Your task to perform on an android device: open a new tab in the chrome app Image 0: 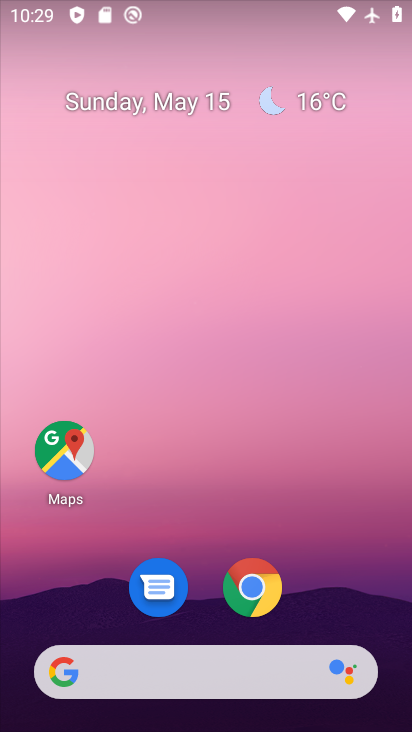
Step 0: drag from (313, 567) to (296, 48)
Your task to perform on an android device: open a new tab in the chrome app Image 1: 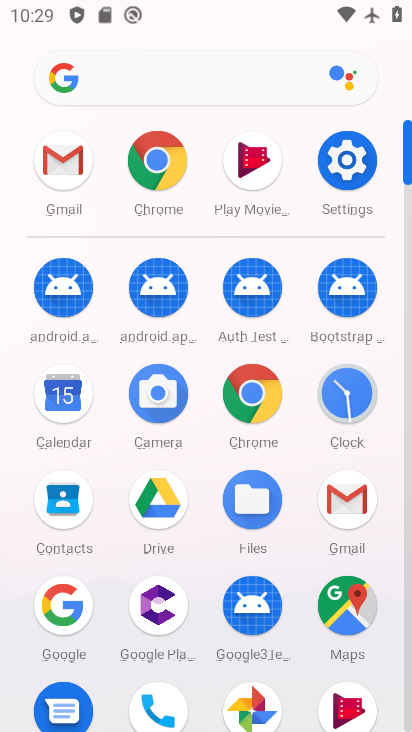
Step 1: drag from (12, 579) to (24, 269)
Your task to perform on an android device: open a new tab in the chrome app Image 2: 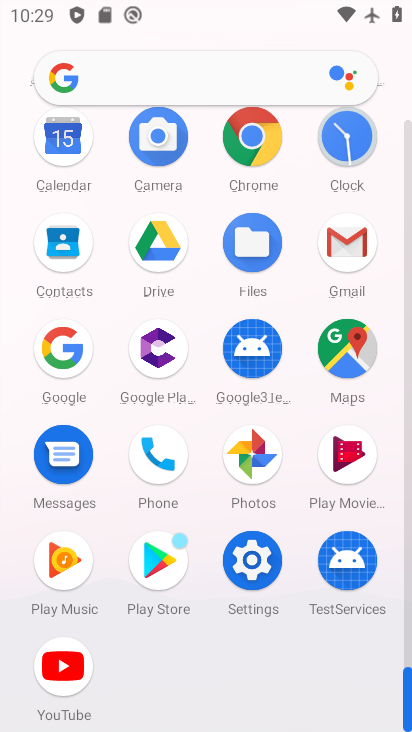
Step 2: click (251, 135)
Your task to perform on an android device: open a new tab in the chrome app Image 3: 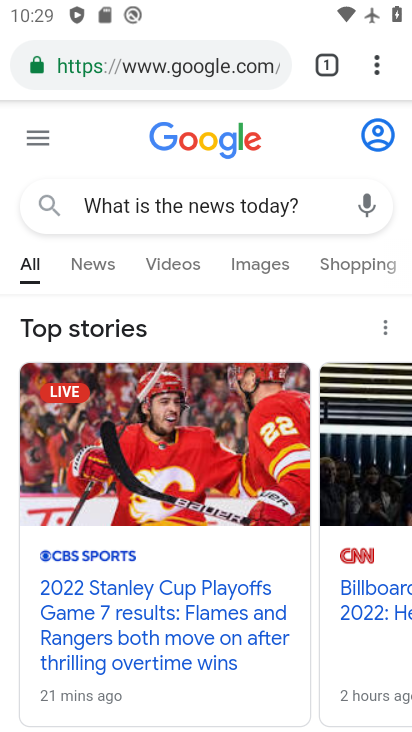
Step 3: task complete